Your task to perform on an android device: Open calendar and show me the third week of next month Image 0: 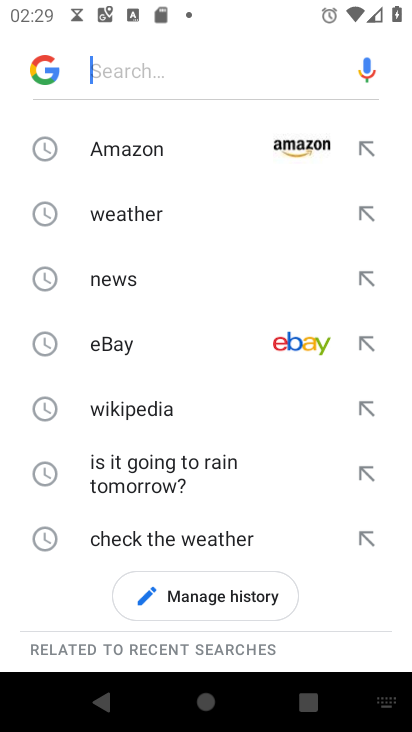
Step 0: press home button
Your task to perform on an android device: Open calendar and show me the third week of next month Image 1: 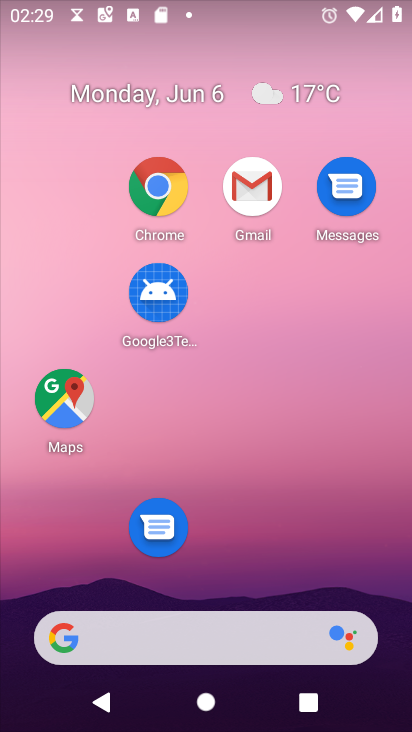
Step 1: drag from (370, 541) to (405, 32)
Your task to perform on an android device: Open calendar and show me the third week of next month Image 2: 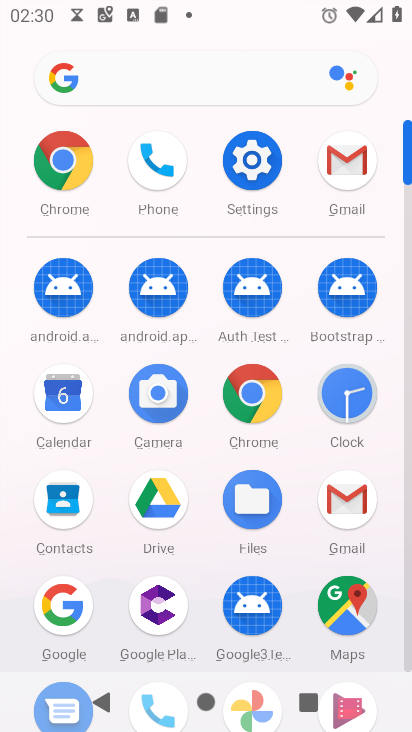
Step 2: click (65, 404)
Your task to perform on an android device: Open calendar and show me the third week of next month Image 3: 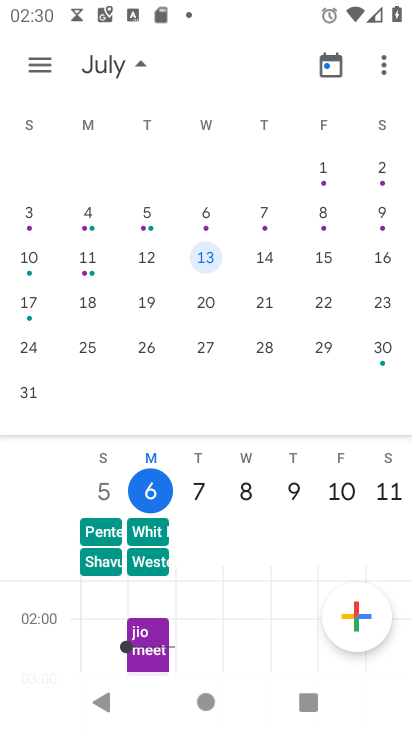
Step 3: task complete